Your task to perform on an android device: toggle sleep mode Image 0: 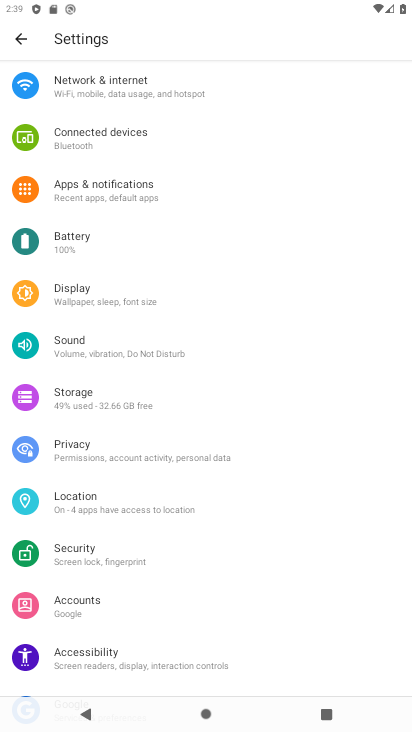
Step 0: click (61, 308)
Your task to perform on an android device: toggle sleep mode Image 1: 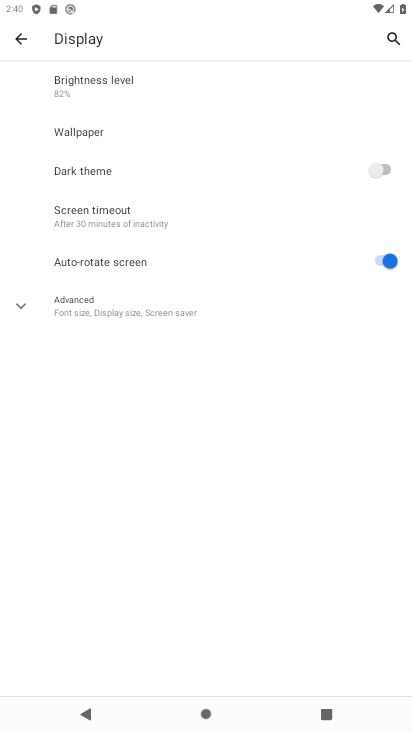
Step 1: click (53, 306)
Your task to perform on an android device: toggle sleep mode Image 2: 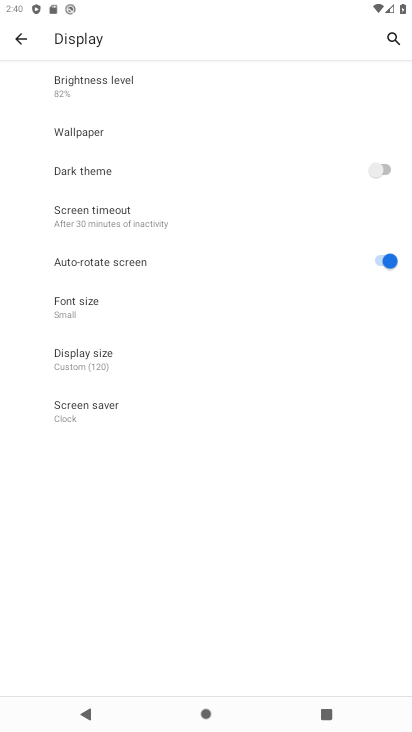
Step 2: task complete